Your task to perform on an android device: toggle airplane mode Image 0: 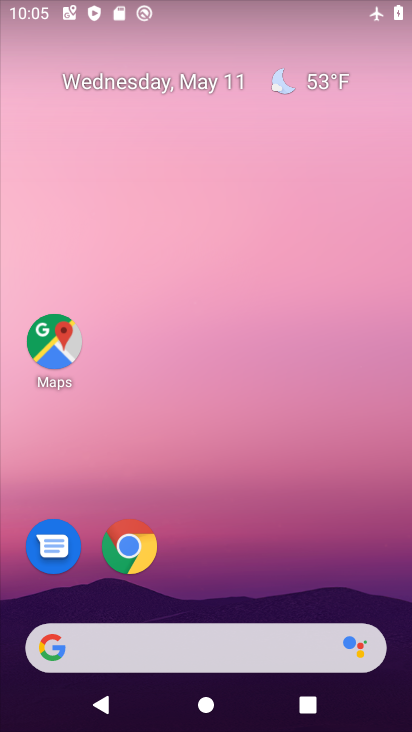
Step 0: drag from (387, 628) to (320, 107)
Your task to perform on an android device: toggle airplane mode Image 1: 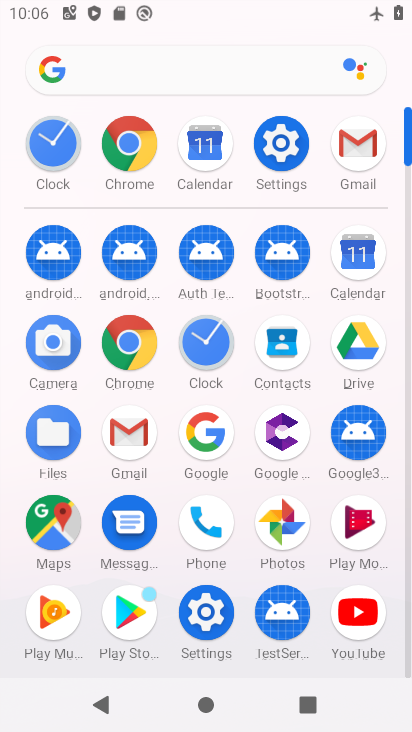
Step 1: drag from (278, 13) to (337, 640)
Your task to perform on an android device: toggle airplane mode Image 2: 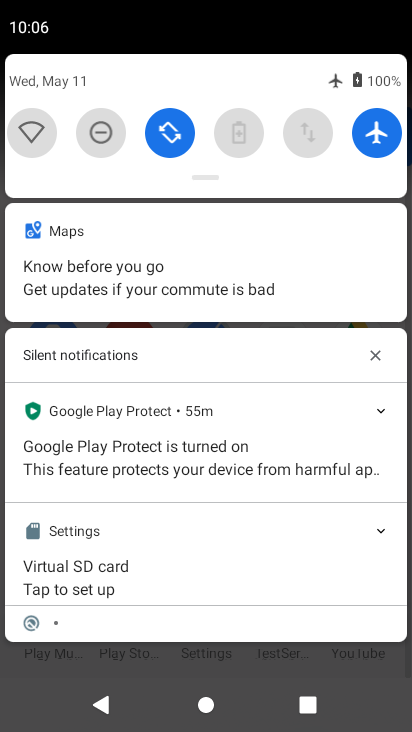
Step 2: click (377, 144)
Your task to perform on an android device: toggle airplane mode Image 3: 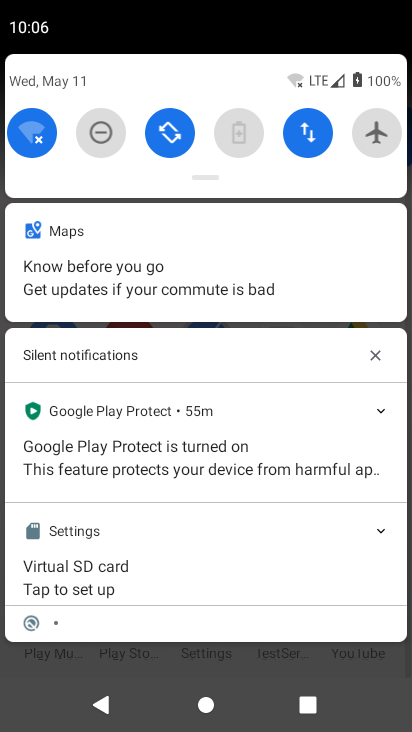
Step 3: task complete